Your task to perform on an android device: delete a single message in the gmail app Image 0: 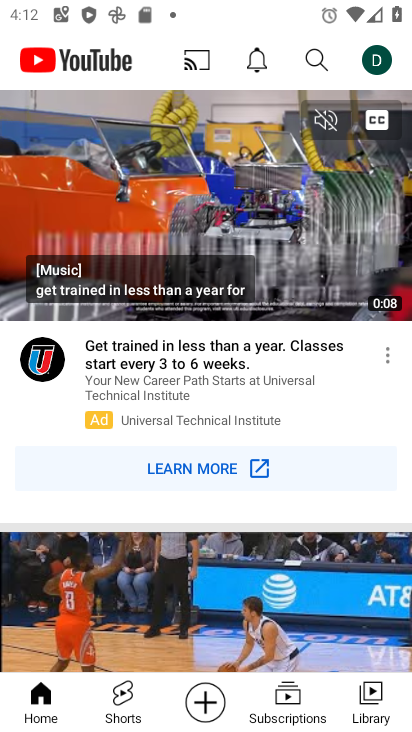
Step 0: press home button
Your task to perform on an android device: delete a single message in the gmail app Image 1: 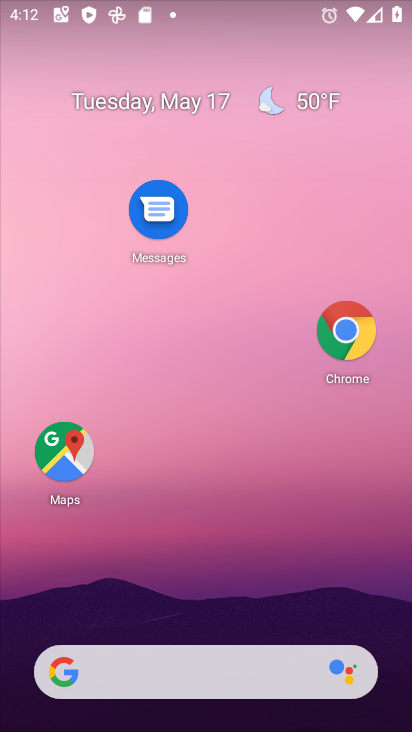
Step 1: drag from (217, 559) to (173, 26)
Your task to perform on an android device: delete a single message in the gmail app Image 2: 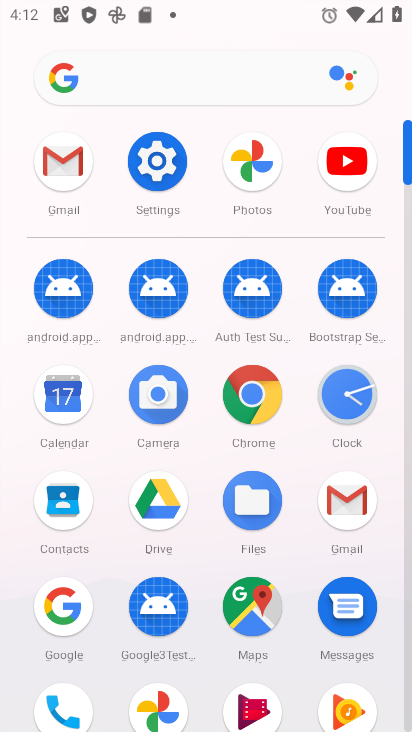
Step 2: click (47, 196)
Your task to perform on an android device: delete a single message in the gmail app Image 3: 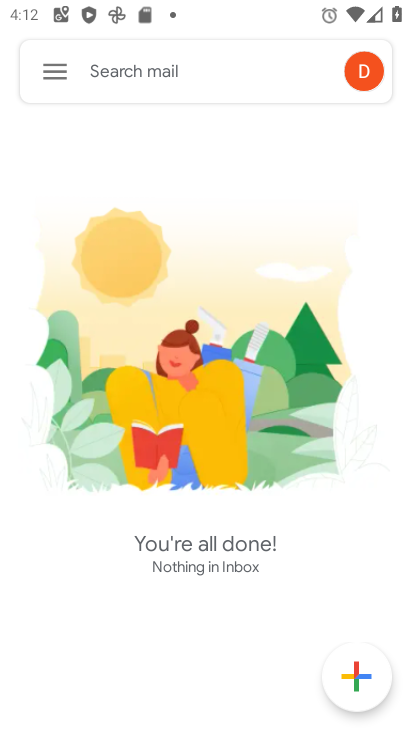
Step 3: click (54, 89)
Your task to perform on an android device: delete a single message in the gmail app Image 4: 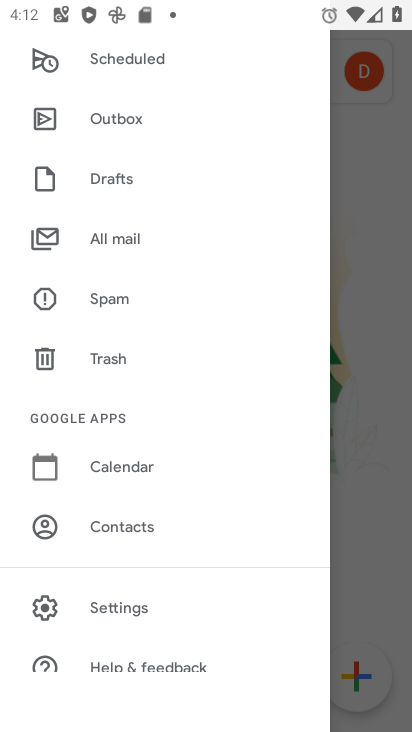
Step 4: drag from (144, 346) to (152, 495)
Your task to perform on an android device: delete a single message in the gmail app Image 5: 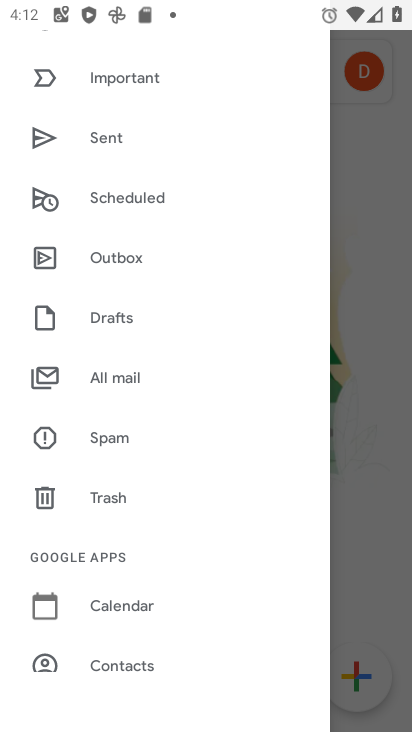
Step 5: drag from (118, 198) to (134, 338)
Your task to perform on an android device: delete a single message in the gmail app Image 6: 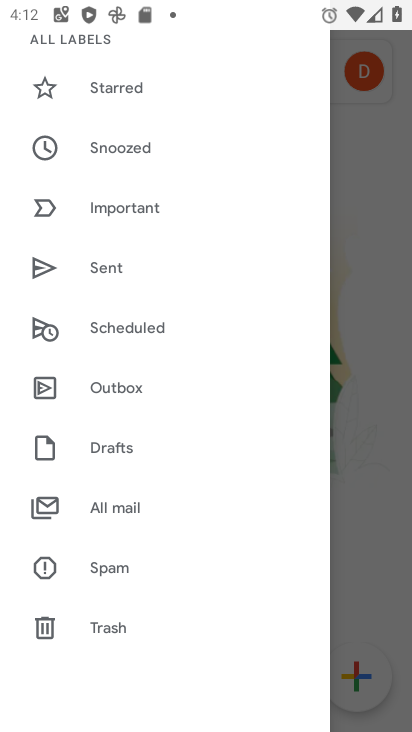
Step 6: drag from (66, 104) to (66, 385)
Your task to perform on an android device: delete a single message in the gmail app Image 7: 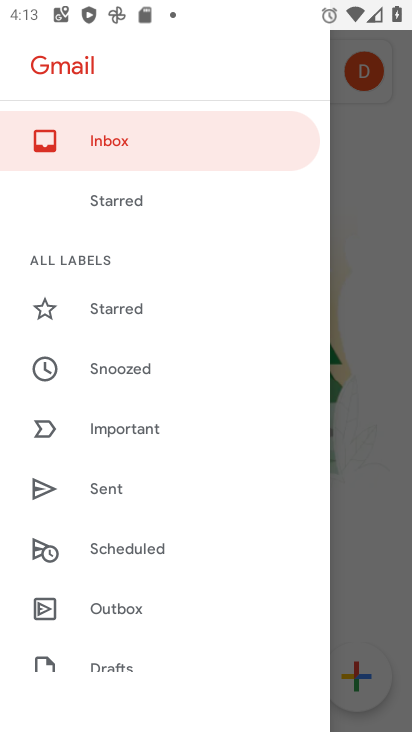
Step 7: drag from (161, 579) to (95, 367)
Your task to perform on an android device: delete a single message in the gmail app Image 8: 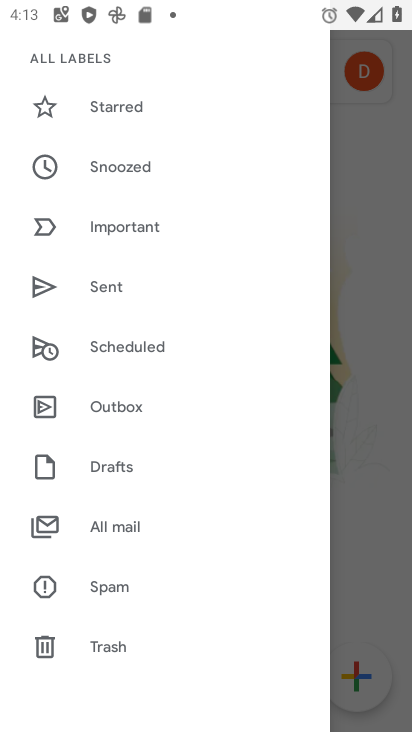
Step 8: drag from (124, 559) to (124, 438)
Your task to perform on an android device: delete a single message in the gmail app Image 9: 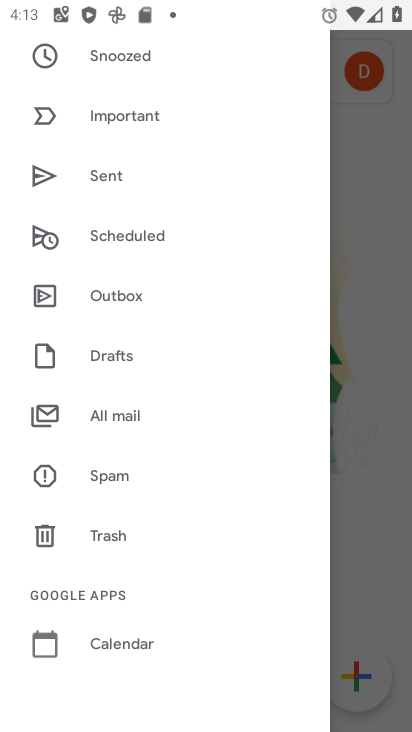
Step 9: click (124, 438)
Your task to perform on an android device: delete a single message in the gmail app Image 10: 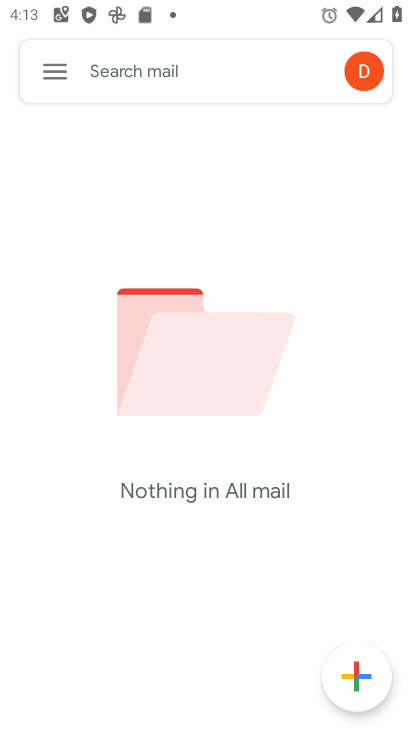
Step 10: task complete